Your task to perform on an android device: Turn on the flashlight Image 0: 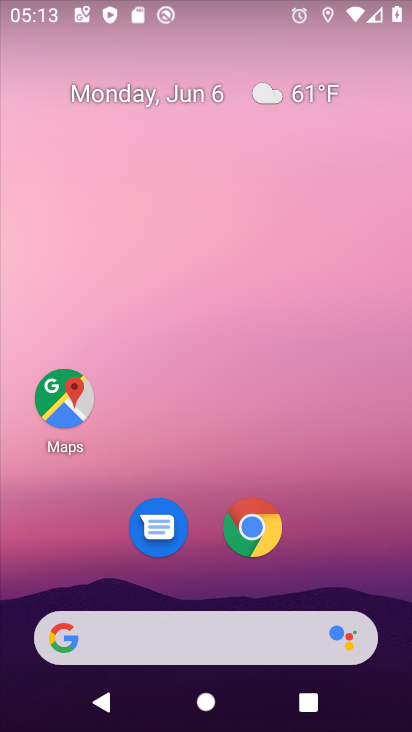
Step 0: drag from (380, 710) to (351, 86)
Your task to perform on an android device: Turn on the flashlight Image 1: 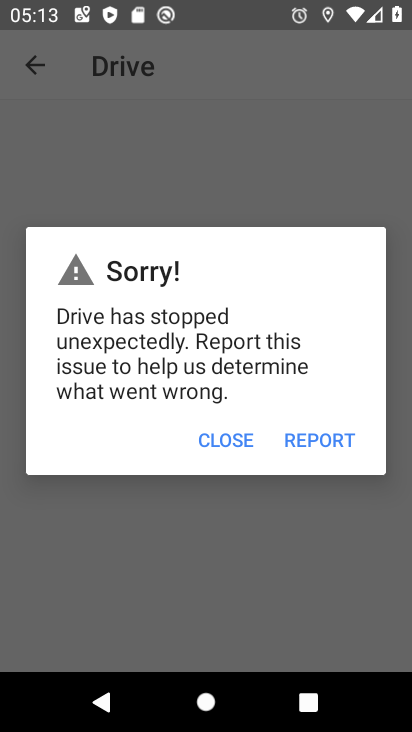
Step 1: press home button
Your task to perform on an android device: Turn on the flashlight Image 2: 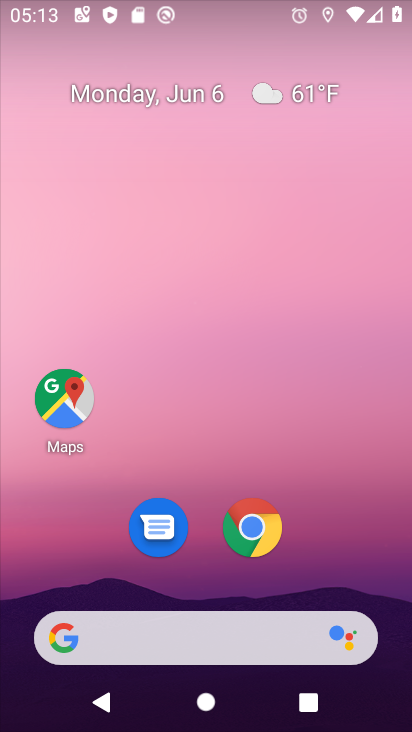
Step 2: drag from (398, 690) to (345, 102)
Your task to perform on an android device: Turn on the flashlight Image 3: 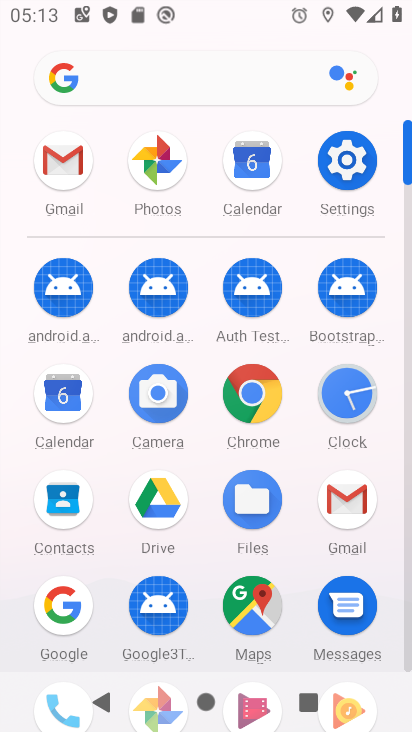
Step 3: click (331, 153)
Your task to perform on an android device: Turn on the flashlight Image 4: 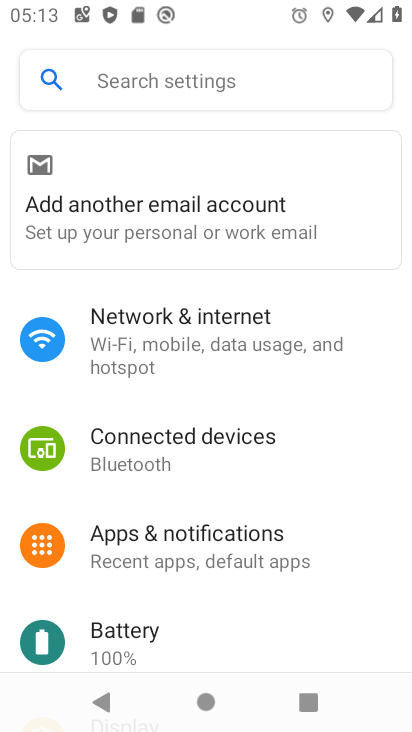
Step 4: drag from (202, 628) to (206, 340)
Your task to perform on an android device: Turn on the flashlight Image 5: 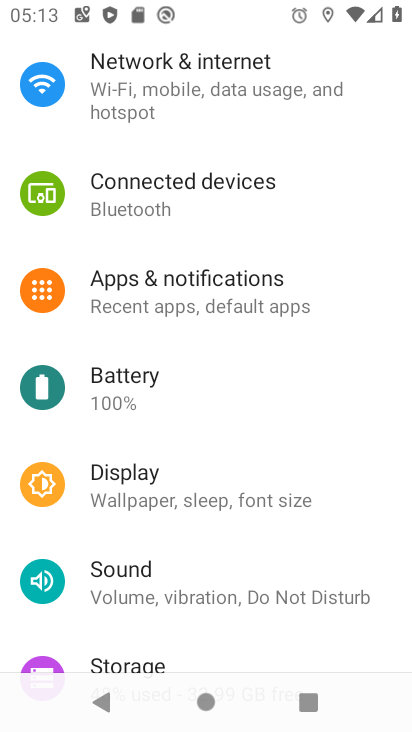
Step 5: click (137, 487)
Your task to perform on an android device: Turn on the flashlight Image 6: 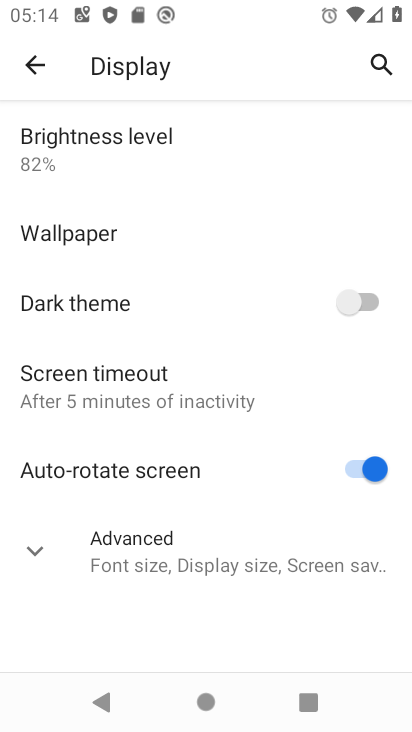
Step 6: task complete